Your task to perform on an android device: set the stopwatch Image 0: 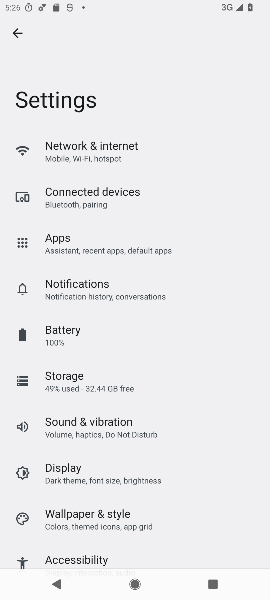
Step 0: press home button
Your task to perform on an android device: set the stopwatch Image 1: 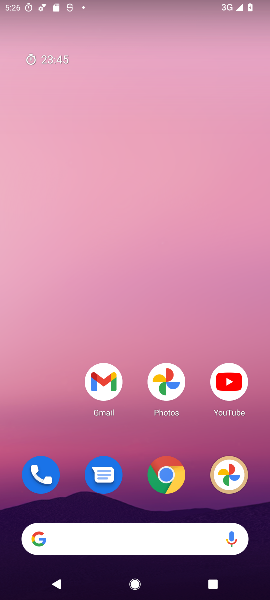
Step 1: drag from (51, 421) to (54, 171)
Your task to perform on an android device: set the stopwatch Image 2: 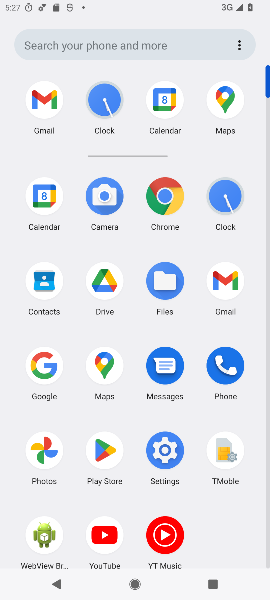
Step 2: click (226, 200)
Your task to perform on an android device: set the stopwatch Image 3: 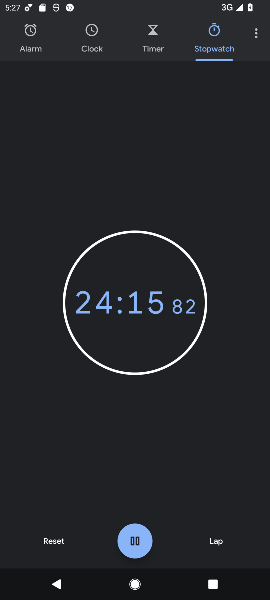
Step 3: task complete